Your task to perform on an android device: toggle pop-ups in chrome Image 0: 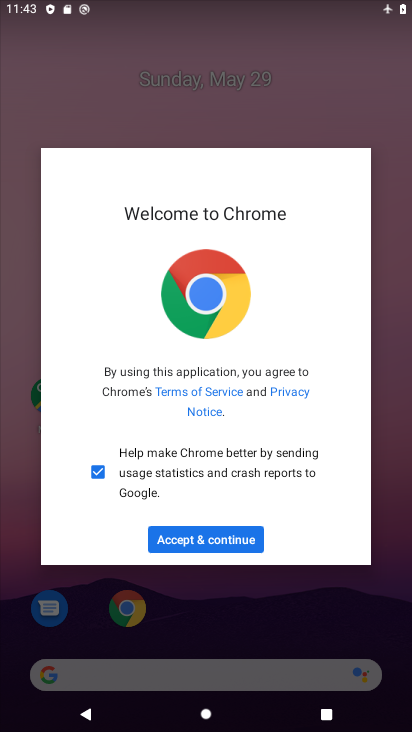
Step 0: click (178, 557)
Your task to perform on an android device: toggle pop-ups in chrome Image 1: 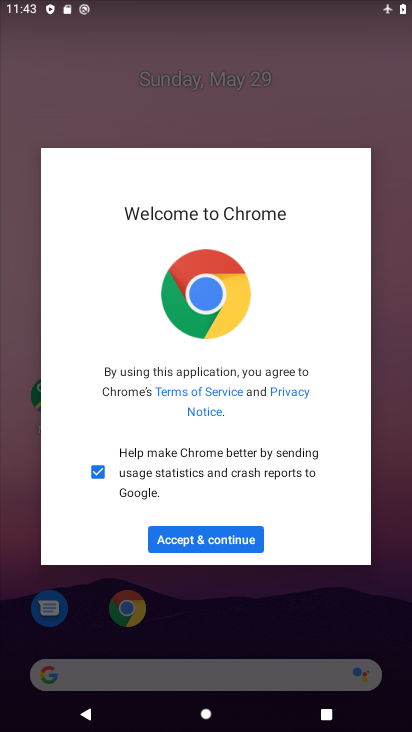
Step 1: click (184, 547)
Your task to perform on an android device: toggle pop-ups in chrome Image 2: 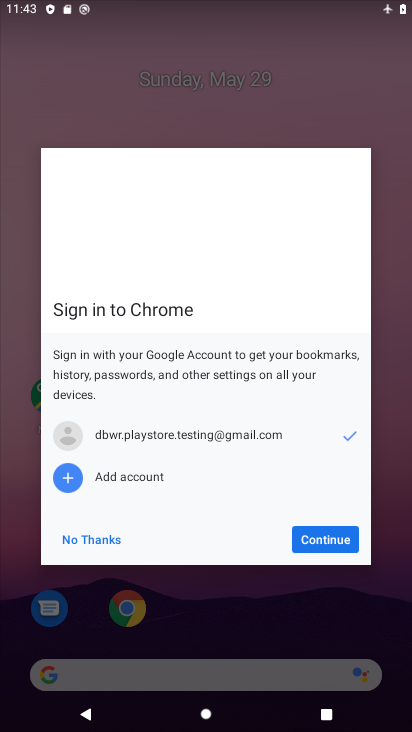
Step 2: click (312, 529)
Your task to perform on an android device: toggle pop-ups in chrome Image 3: 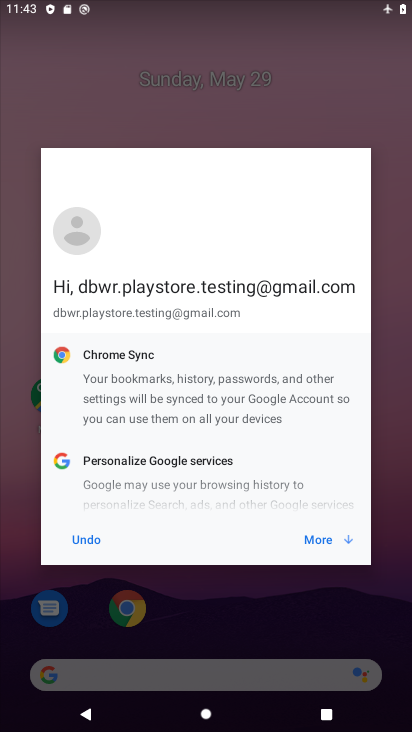
Step 3: click (331, 546)
Your task to perform on an android device: toggle pop-ups in chrome Image 4: 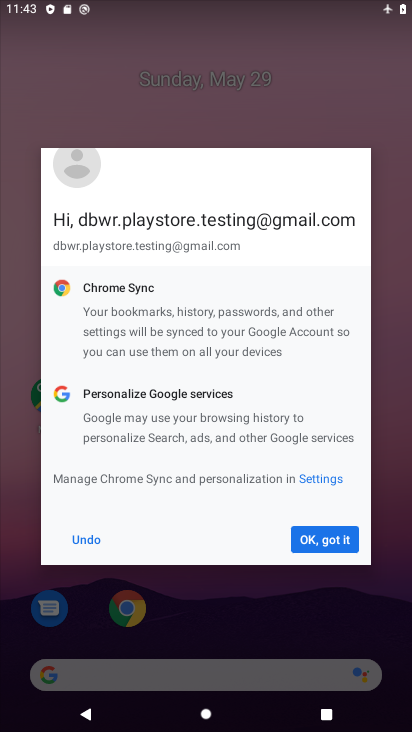
Step 4: click (331, 546)
Your task to perform on an android device: toggle pop-ups in chrome Image 5: 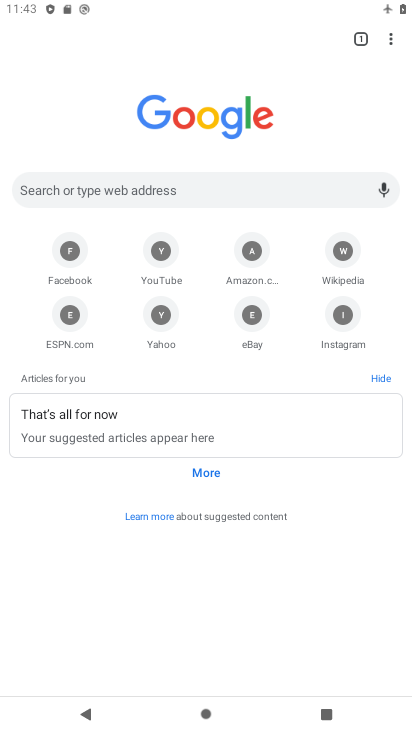
Step 5: click (390, 40)
Your task to perform on an android device: toggle pop-ups in chrome Image 6: 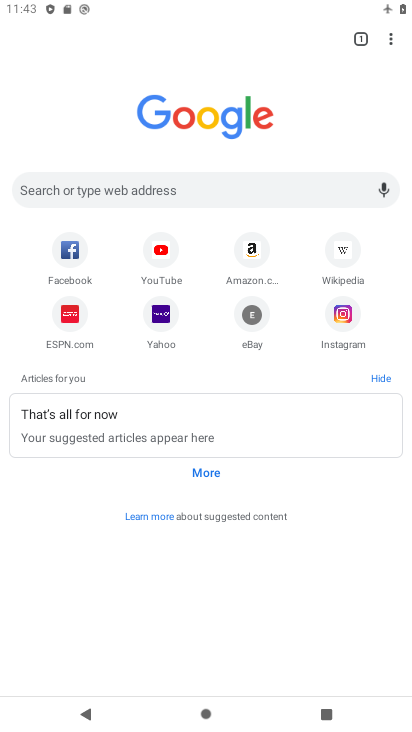
Step 6: drag from (390, 39) to (251, 324)
Your task to perform on an android device: toggle pop-ups in chrome Image 7: 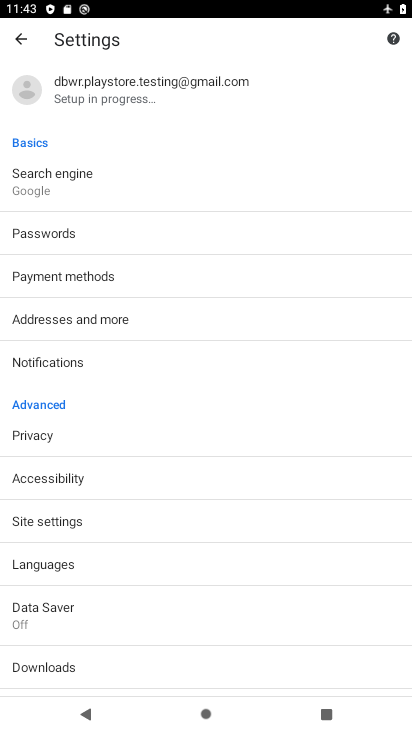
Step 7: click (48, 519)
Your task to perform on an android device: toggle pop-ups in chrome Image 8: 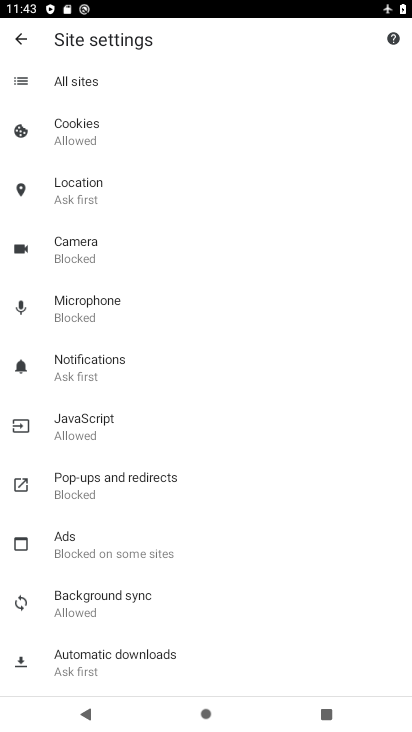
Step 8: click (94, 506)
Your task to perform on an android device: toggle pop-ups in chrome Image 9: 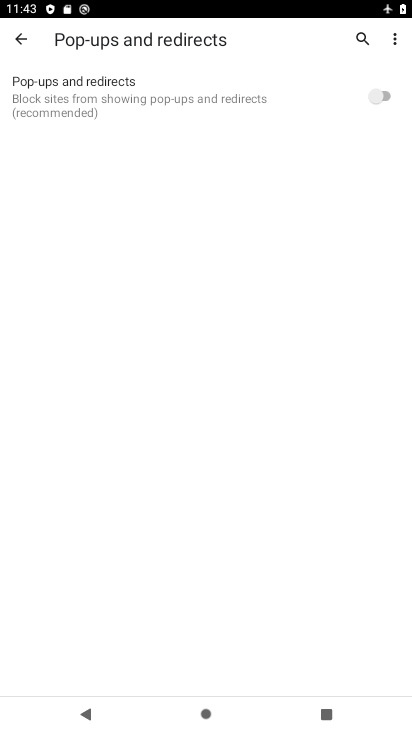
Step 9: click (374, 97)
Your task to perform on an android device: toggle pop-ups in chrome Image 10: 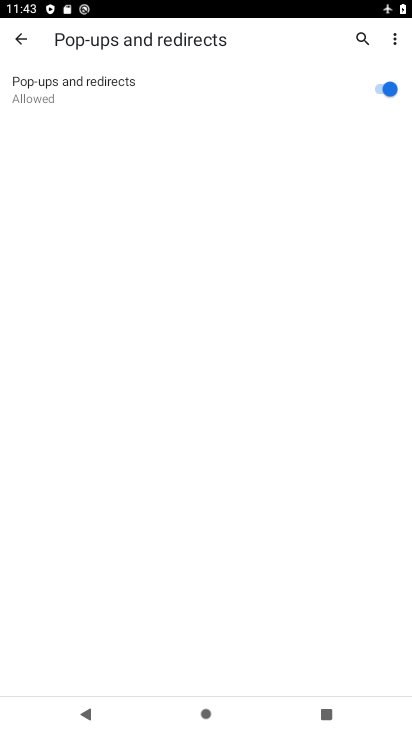
Step 10: task complete